Your task to perform on an android device: Is it going to rain today? Image 0: 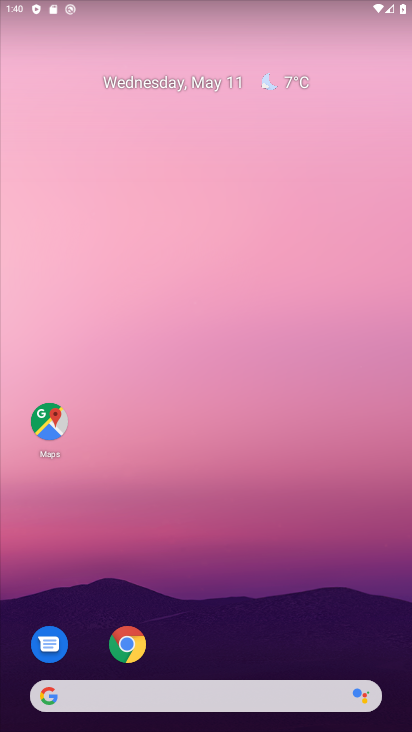
Step 0: click (290, 86)
Your task to perform on an android device: Is it going to rain today? Image 1: 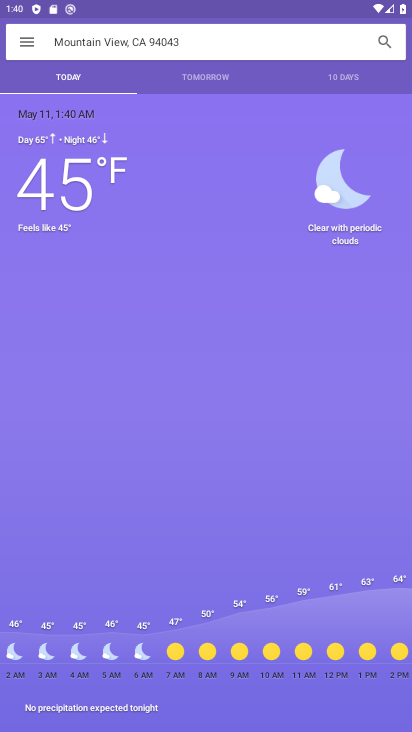
Step 1: task complete